Your task to perform on an android device: Go to Android settings Image 0: 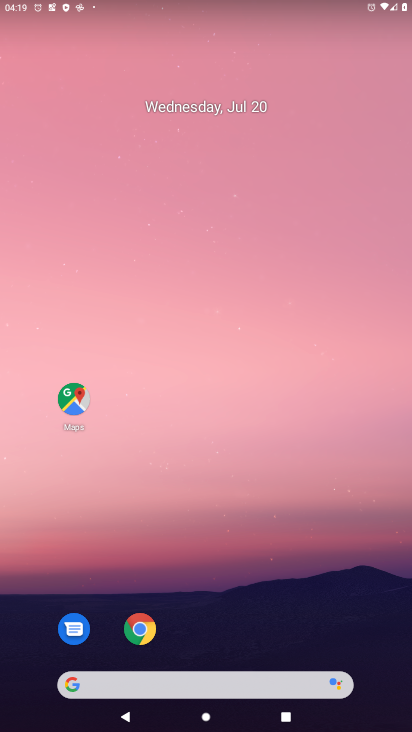
Step 0: drag from (378, 663) to (341, 69)
Your task to perform on an android device: Go to Android settings Image 1: 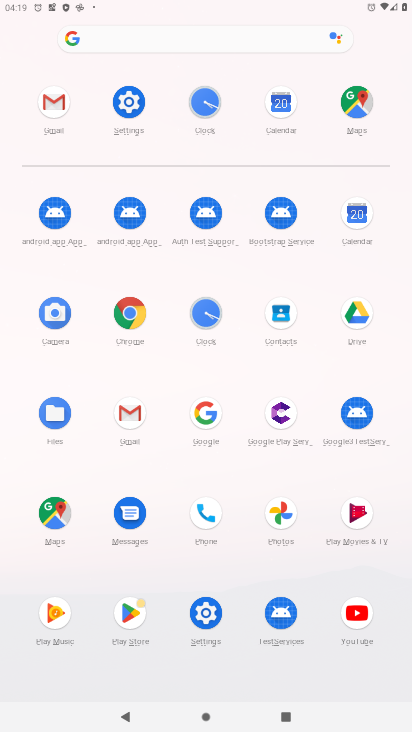
Step 1: click (205, 615)
Your task to perform on an android device: Go to Android settings Image 2: 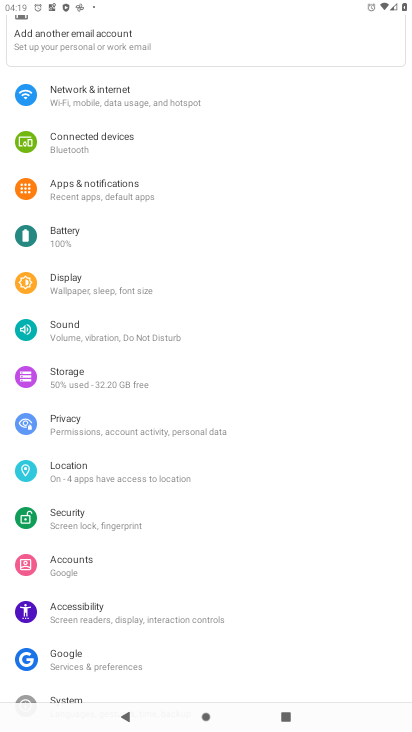
Step 2: drag from (259, 628) to (276, 237)
Your task to perform on an android device: Go to Android settings Image 3: 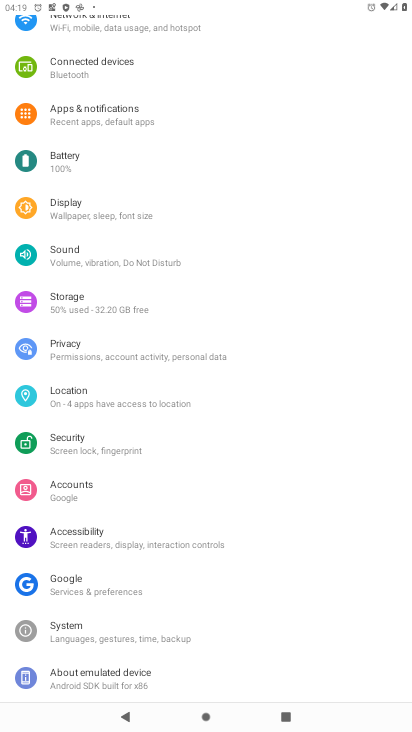
Step 3: click (94, 678)
Your task to perform on an android device: Go to Android settings Image 4: 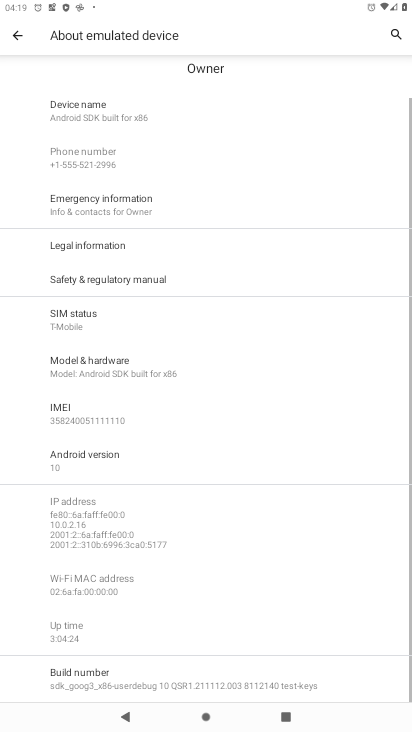
Step 4: task complete